Your task to perform on an android device: Do I have any events this weekend? Image 0: 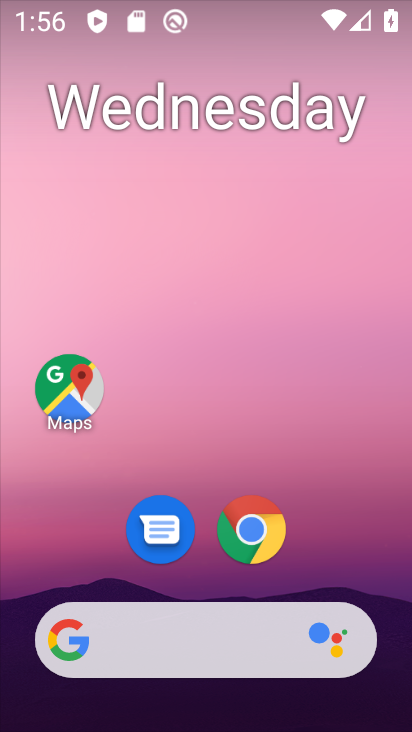
Step 0: drag from (202, 555) to (233, 50)
Your task to perform on an android device: Do I have any events this weekend? Image 1: 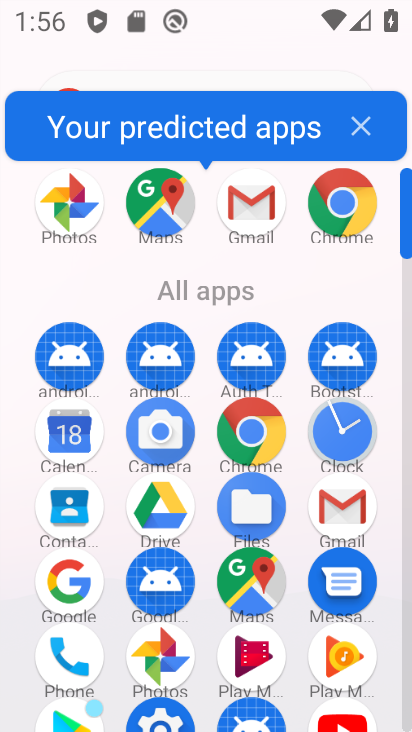
Step 1: click (70, 436)
Your task to perform on an android device: Do I have any events this weekend? Image 2: 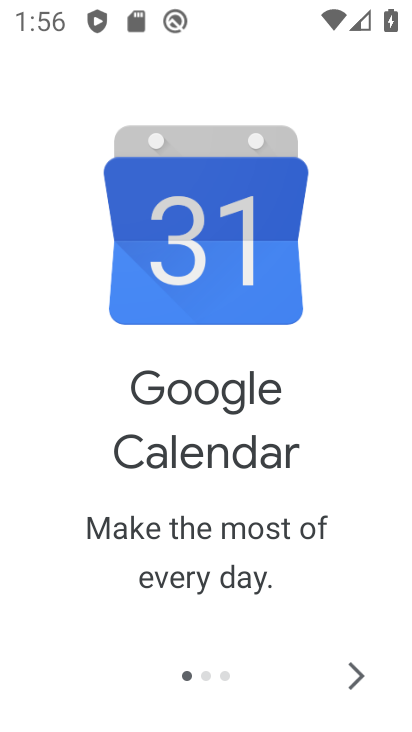
Step 2: click (336, 672)
Your task to perform on an android device: Do I have any events this weekend? Image 3: 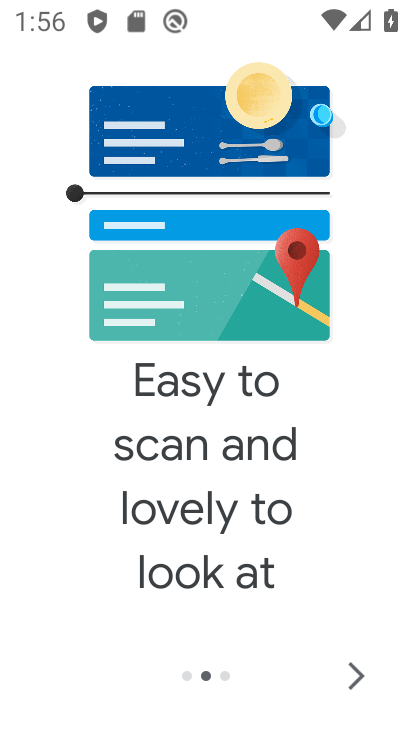
Step 3: click (340, 672)
Your task to perform on an android device: Do I have any events this weekend? Image 4: 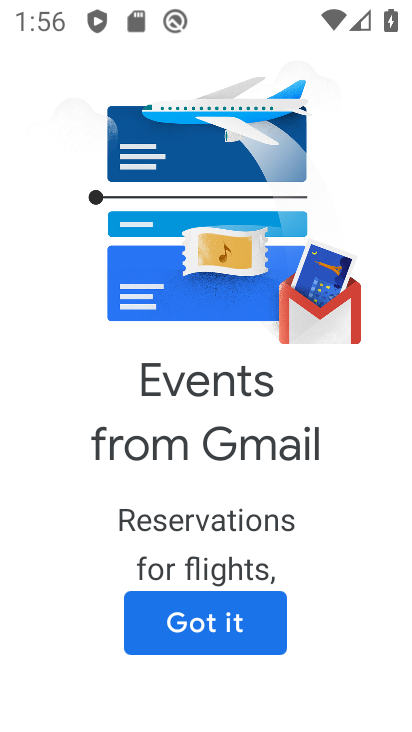
Step 4: click (223, 597)
Your task to perform on an android device: Do I have any events this weekend? Image 5: 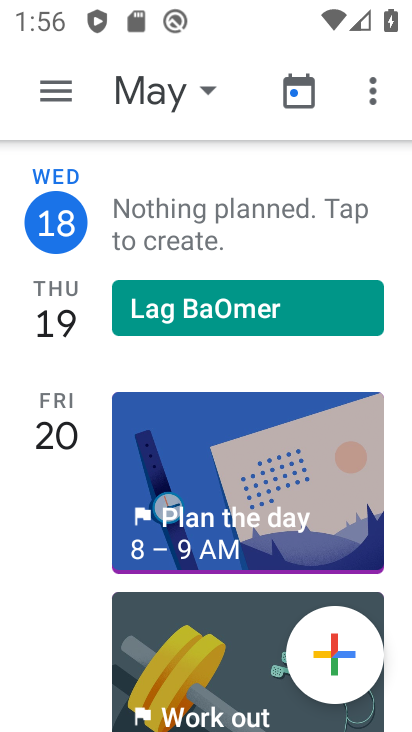
Step 5: drag from (212, 609) to (309, 44)
Your task to perform on an android device: Do I have any events this weekend? Image 6: 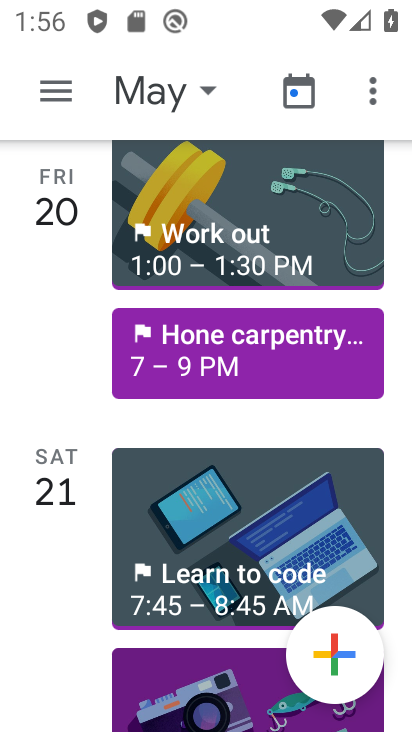
Step 6: drag from (218, 596) to (304, 14)
Your task to perform on an android device: Do I have any events this weekend? Image 7: 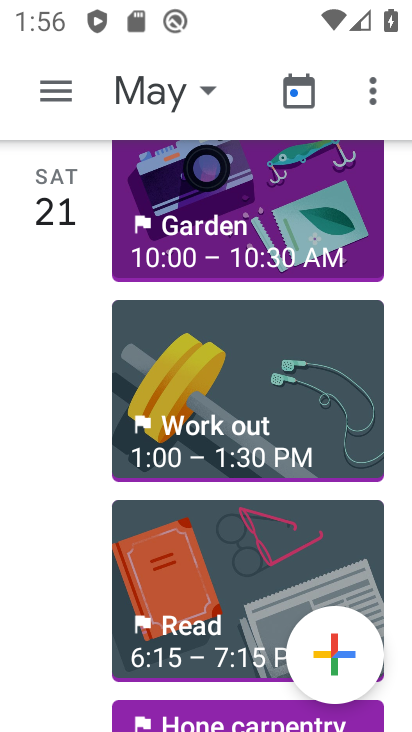
Step 7: drag from (206, 584) to (239, 53)
Your task to perform on an android device: Do I have any events this weekend? Image 8: 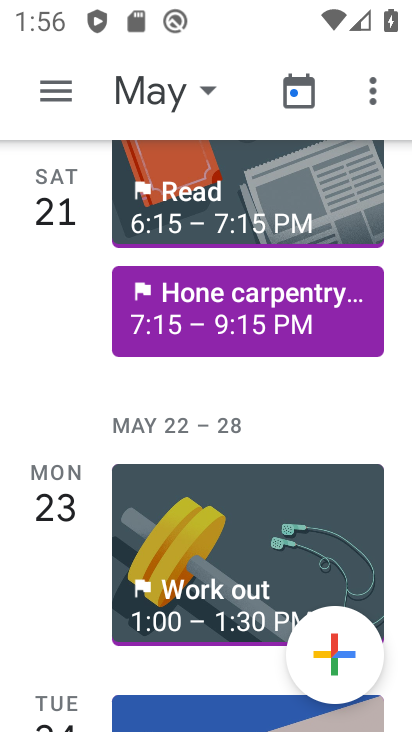
Step 8: click (224, 312)
Your task to perform on an android device: Do I have any events this weekend? Image 9: 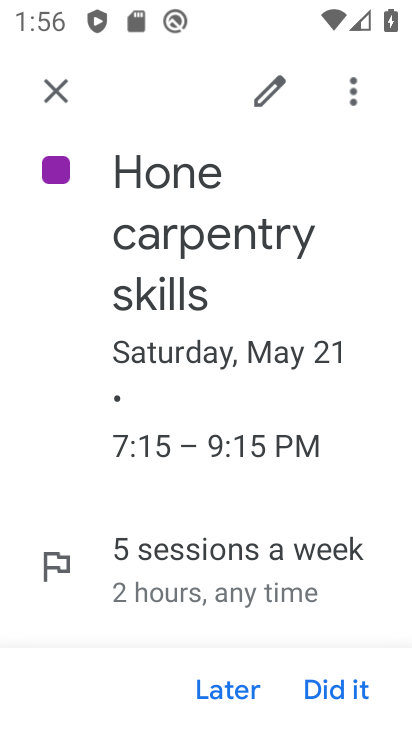
Step 9: task complete